Your task to perform on an android device: When is my next appointment? Image 0: 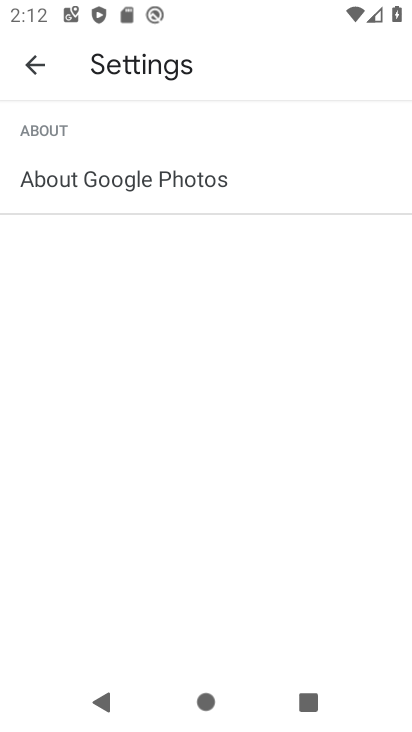
Step 0: press home button
Your task to perform on an android device: When is my next appointment? Image 1: 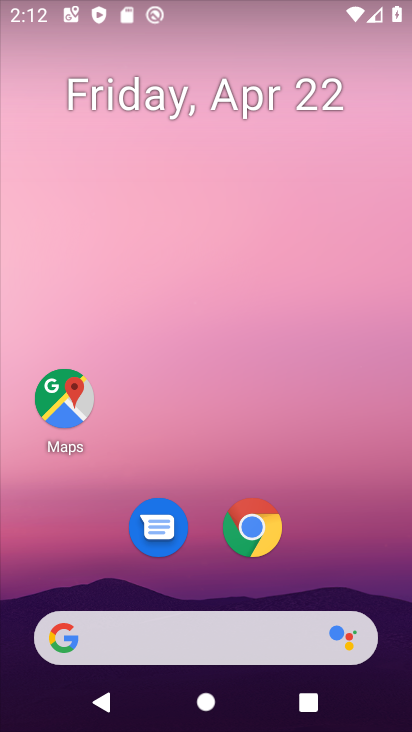
Step 1: drag from (238, 578) to (251, 39)
Your task to perform on an android device: When is my next appointment? Image 2: 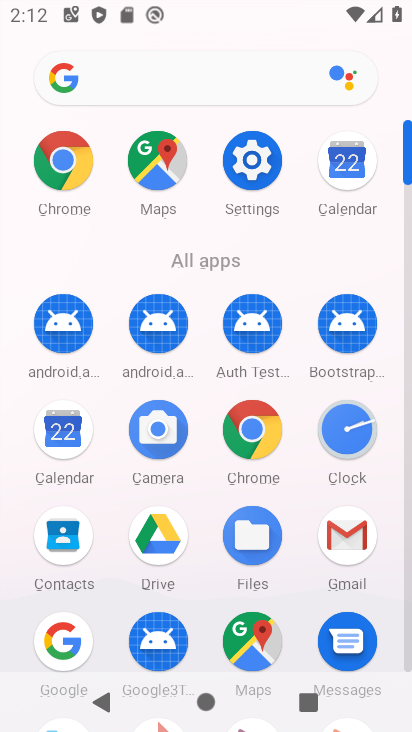
Step 2: click (58, 432)
Your task to perform on an android device: When is my next appointment? Image 3: 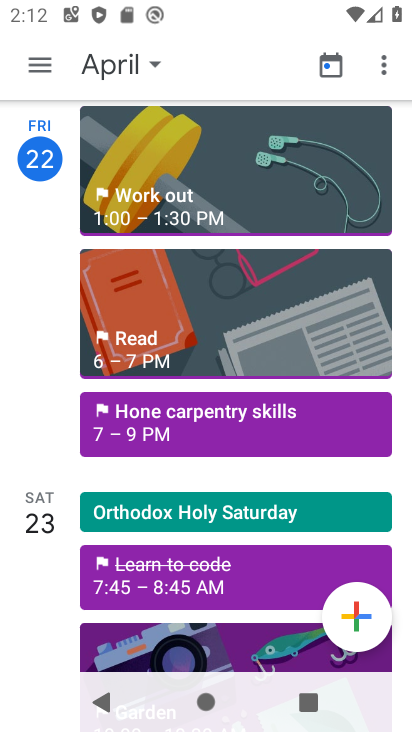
Step 3: click (36, 67)
Your task to perform on an android device: When is my next appointment? Image 4: 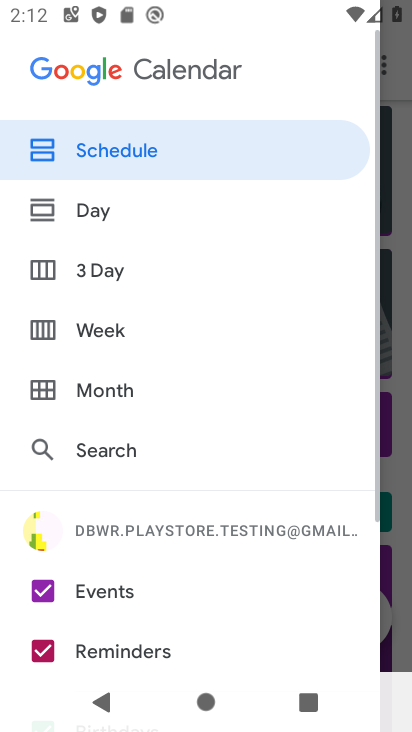
Step 4: click (89, 154)
Your task to perform on an android device: When is my next appointment? Image 5: 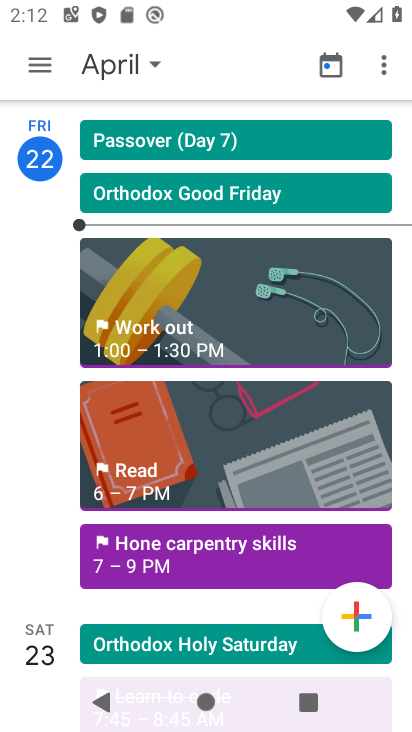
Step 5: task complete